Your task to perform on an android device: Open display settings Image 0: 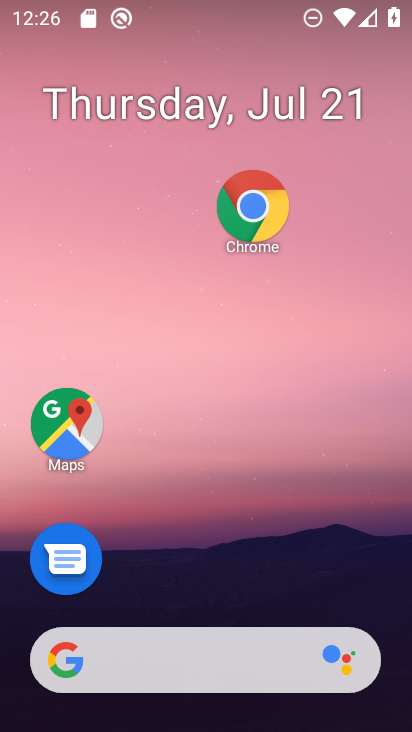
Step 0: drag from (123, 617) to (123, 141)
Your task to perform on an android device: Open display settings Image 1: 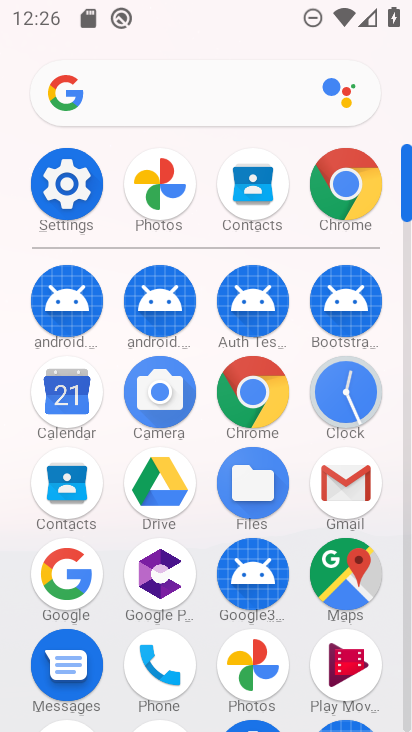
Step 1: click (53, 213)
Your task to perform on an android device: Open display settings Image 2: 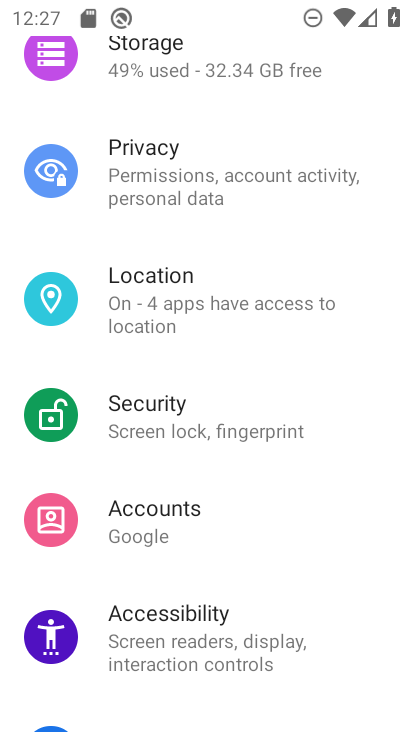
Step 2: drag from (213, 314) to (319, 716)
Your task to perform on an android device: Open display settings Image 3: 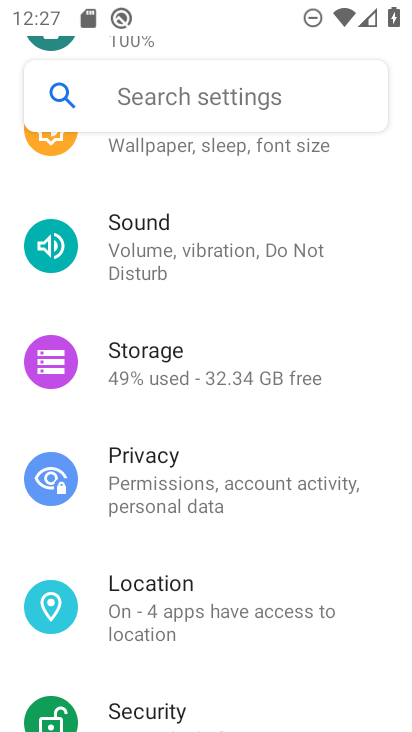
Step 3: drag from (212, 329) to (187, 585)
Your task to perform on an android device: Open display settings Image 4: 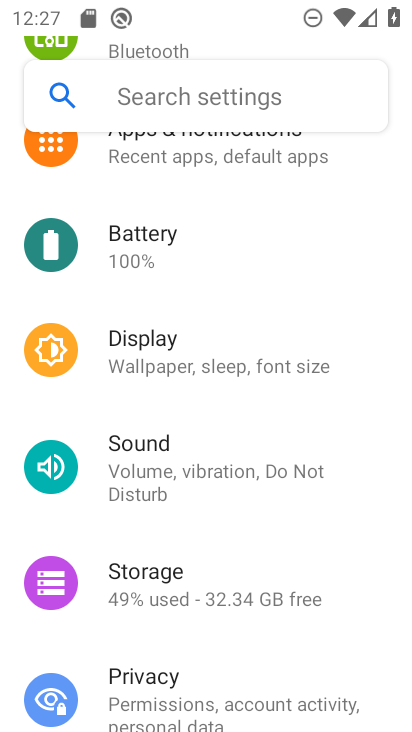
Step 4: click (146, 354)
Your task to perform on an android device: Open display settings Image 5: 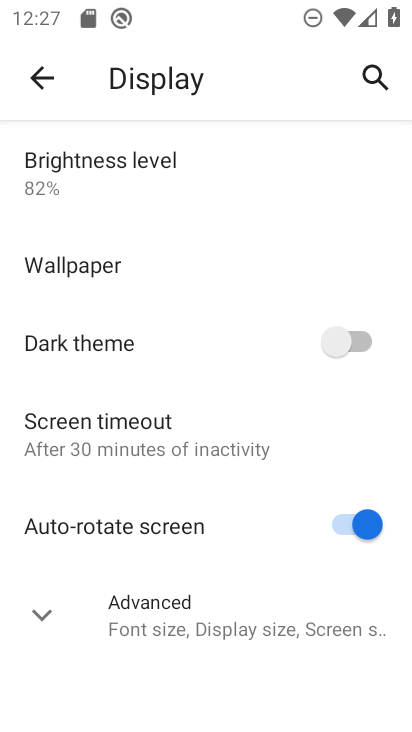
Step 5: task complete